Your task to perform on an android device: add a contact Image 0: 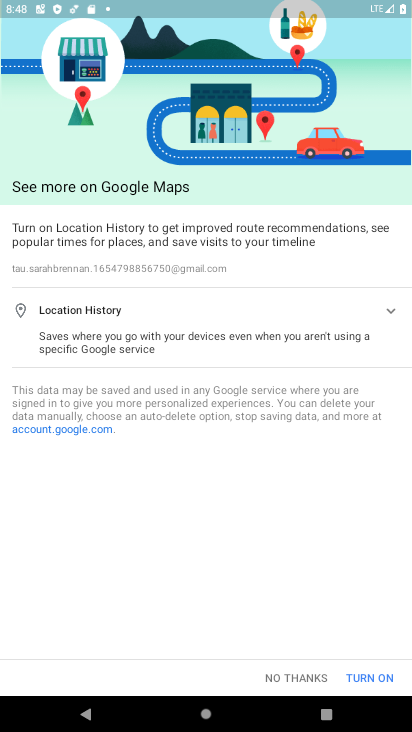
Step 0: press home button
Your task to perform on an android device: add a contact Image 1: 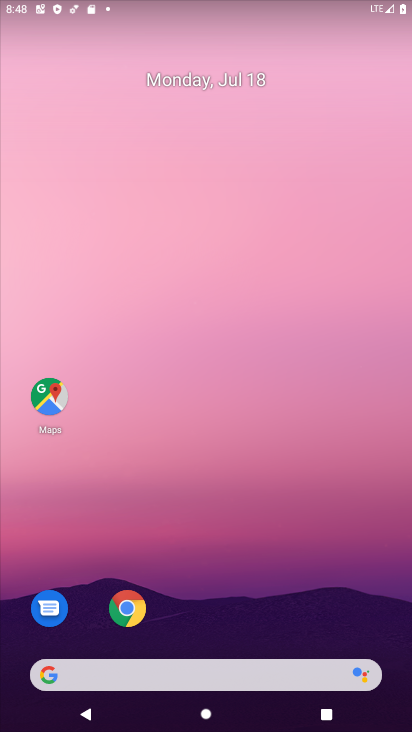
Step 1: click (351, 0)
Your task to perform on an android device: add a contact Image 2: 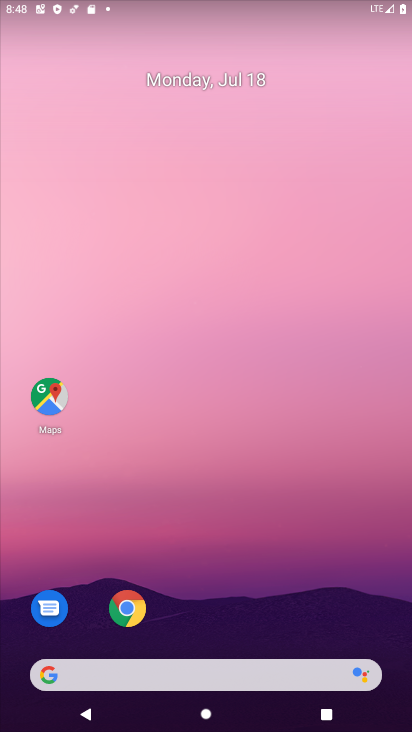
Step 2: drag from (30, 697) to (242, 190)
Your task to perform on an android device: add a contact Image 3: 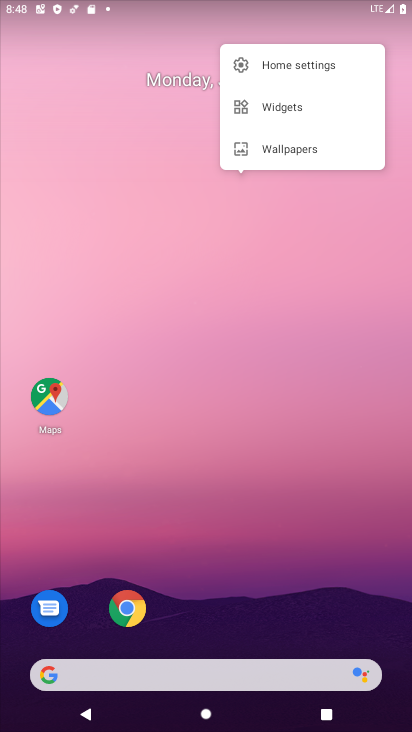
Step 3: drag from (104, 530) to (186, 258)
Your task to perform on an android device: add a contact Image 4: 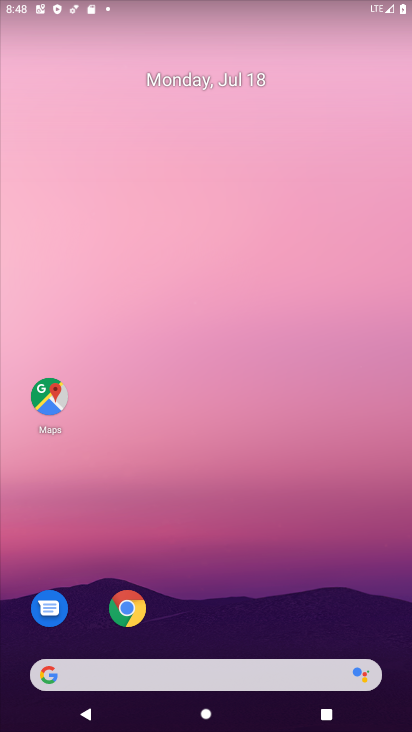
Step 4: drag from (49, 669) to (221, 252)
Your task to perform on an android device: add a contact Image 5: 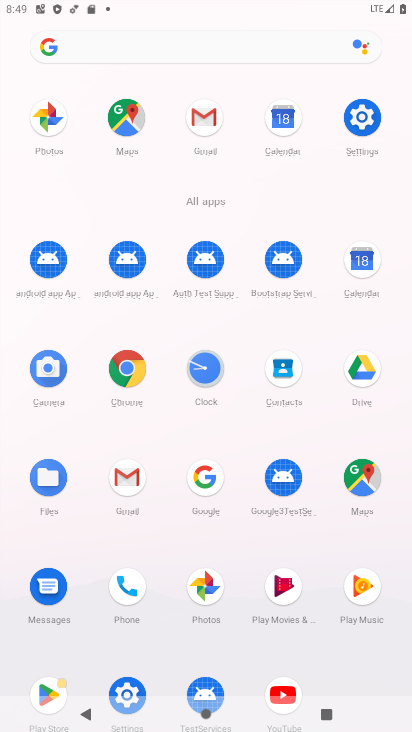
Step 5: click (287, 375)
Your task to perform on an android device: add a contact Image 6: 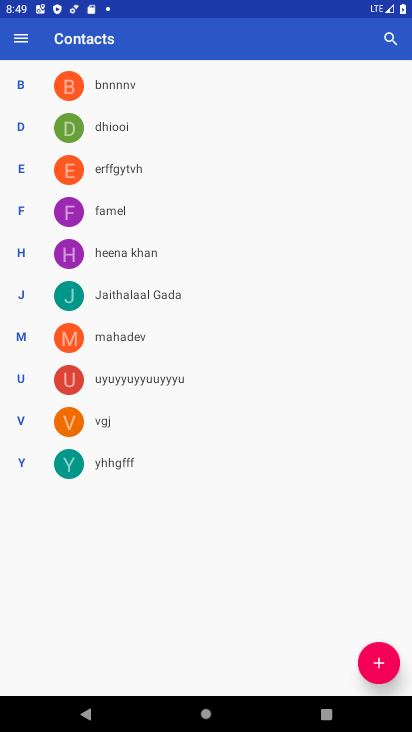
Step 6: click (374, 656)
Your task to perform on an android device: add a contact Image 7: 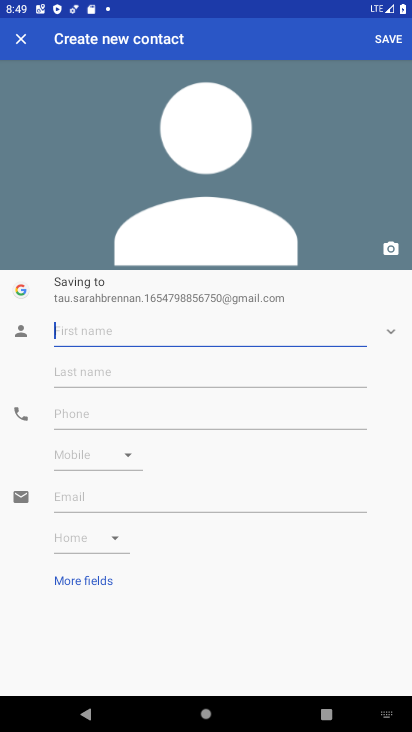
Step 7: type "zdfseg"
Your task to perform on an android device: add a contact Image 8: 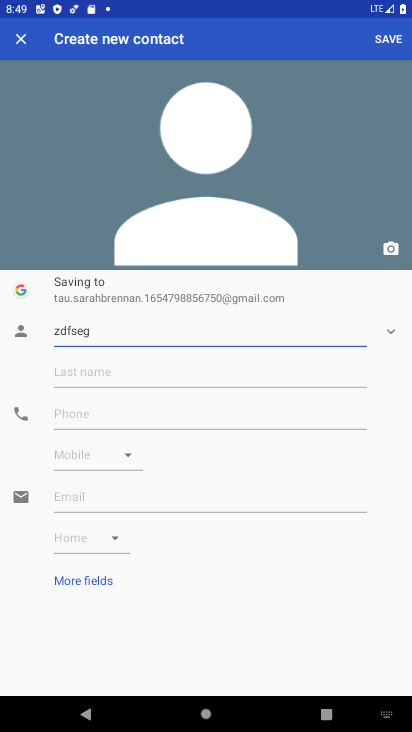
Step 8: click (383, 30)
Your task to perform on an android device: add a contact Image 9: 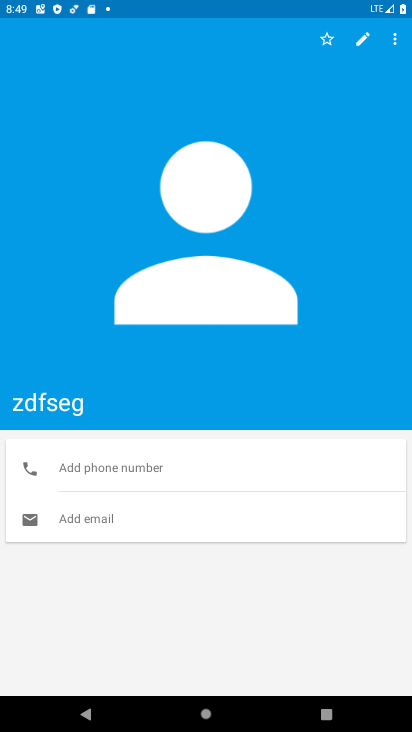
Step 9: task complete